Your task to perform on an android device: Open settings Image 0: 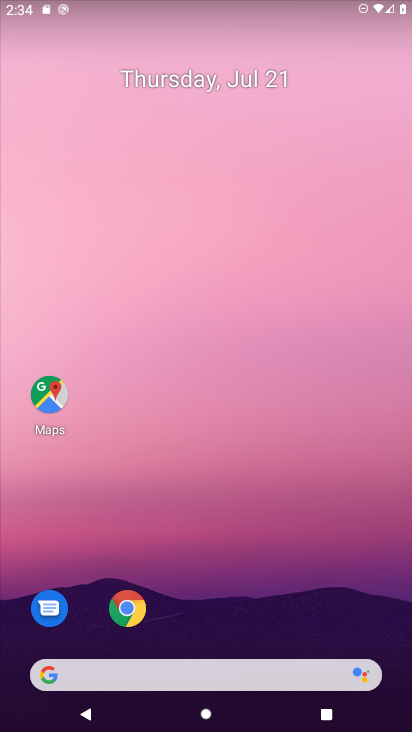
Step 0: drag from (191, 617) to (205, 139)
Your task to perform on an android device: Open settings Image 1: 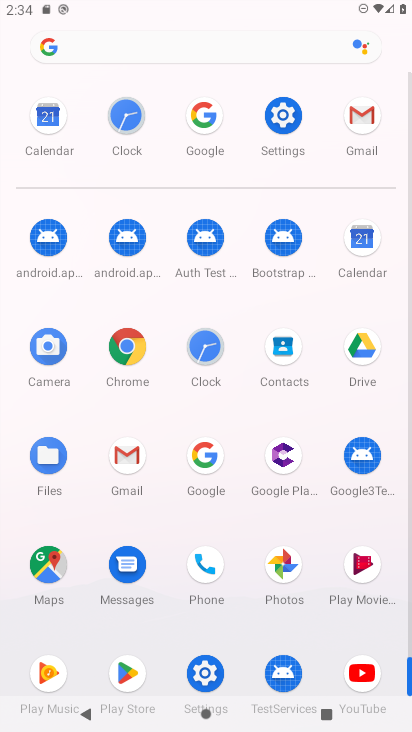
Step 1: click (282, 138)
Your task to perform on an android device: Open settings Image 2: 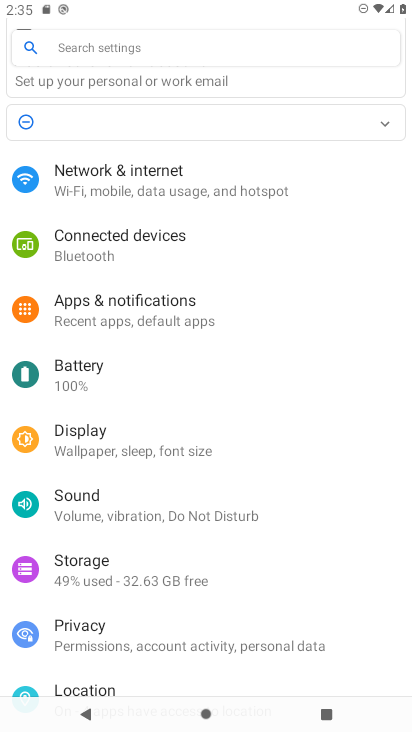
Step 2: task complete